Your task to perform on an android device: snooze an email in the gmail app Image 0: 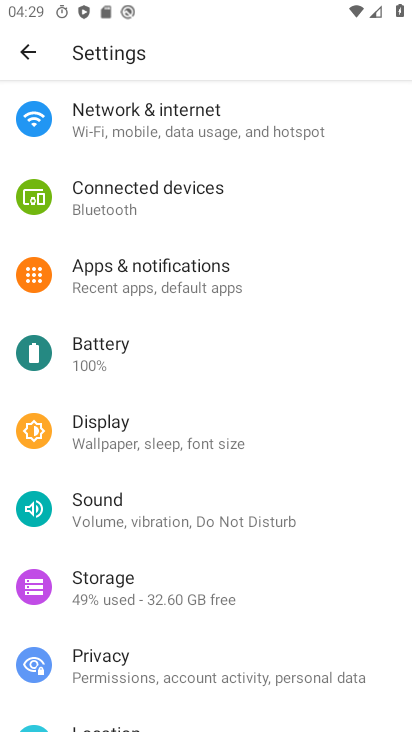
Step 0: press home button
Your task to perform on an android device: snooze an email in the gmail app Image 1: 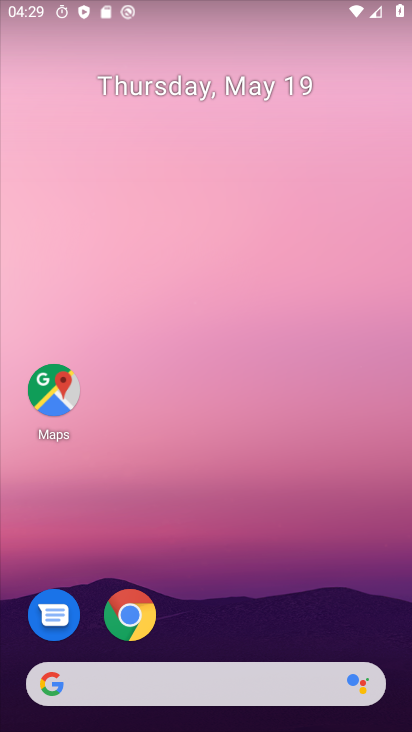
Step 1: drag from (274, 629) to (299, 0)
Your task to perform on an android device: snooze an email in the gmail app Image 2: 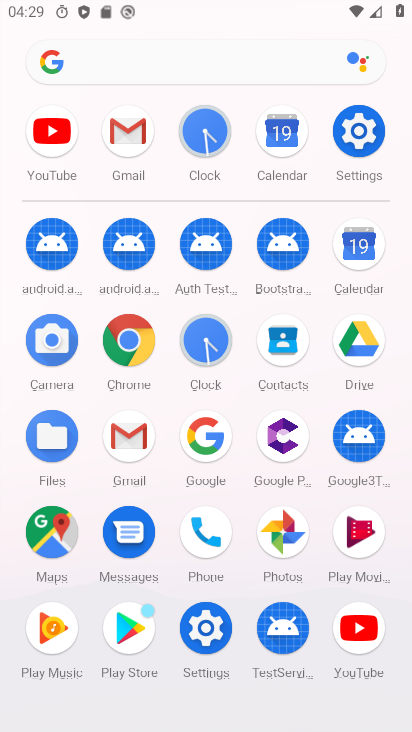
Step 2: click (142, 145)
Your task to perform on an android device: snooze an email in the gmail app Image 3: 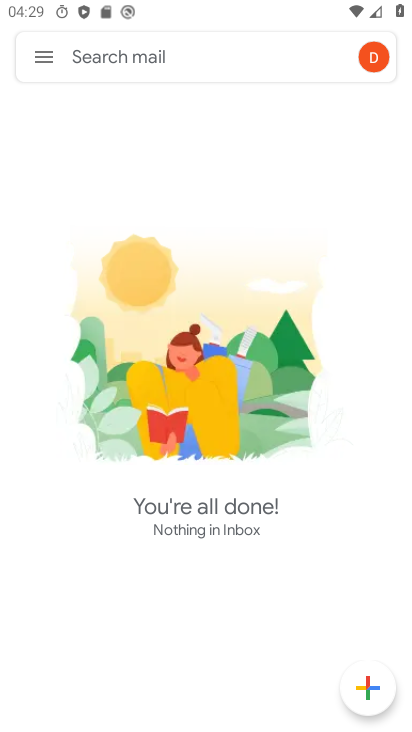
Step 3: click (36, 53)
Your task to perform on an android device: snooze an email in the gmail app Image 4: 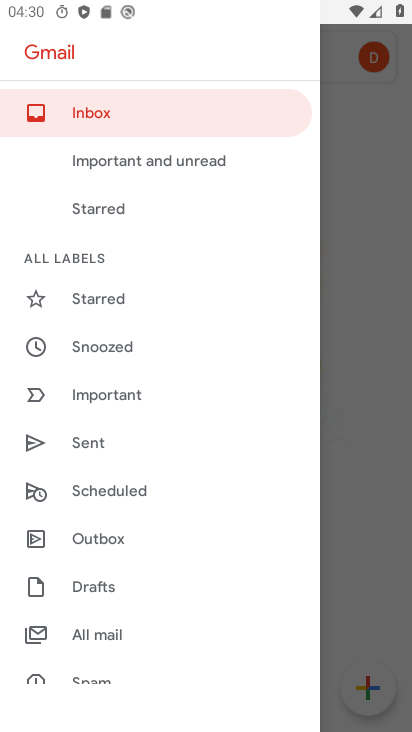
Step 4: click (116, 630)
Your task to perform on an android device: snooze an email in the gmail app Image 5: 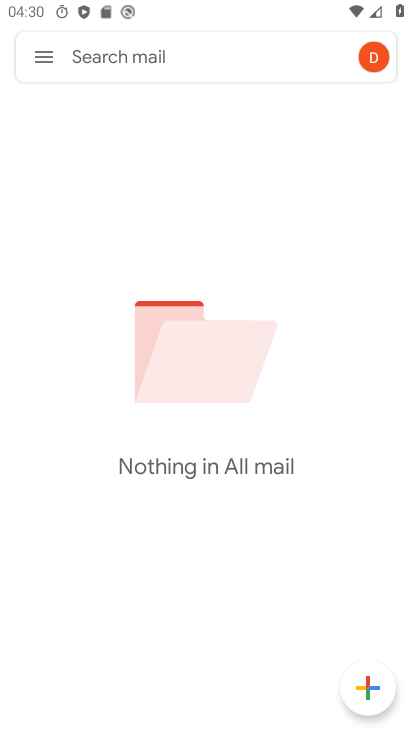
Step 5: task complete